Your task to perform on an android device: make emails show in primary in the gmail app Image 0: 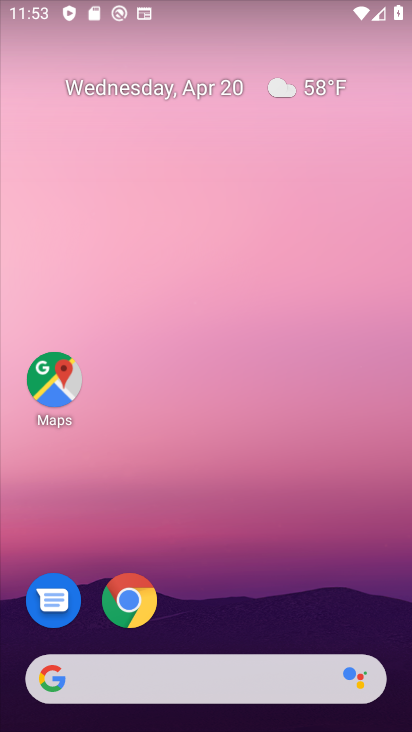
Step 0: click (135, 35)
Your task to perform on an android device: make emails show in primary in the gmail app Image 1: 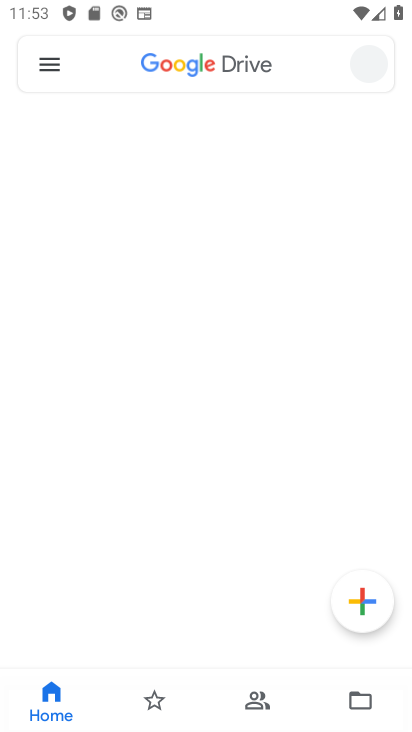
Step 1: press home button
Your task to perform on an android device: make emails show in primary in the gmail app Image 2: 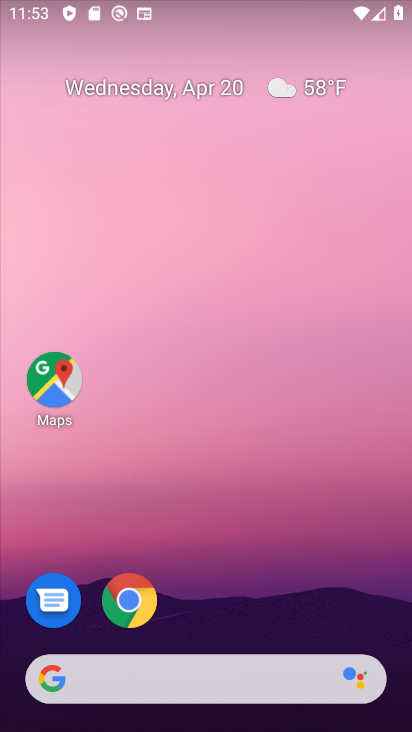
Step 2: drag from (230, 634) to (165, 70)
Your task to perform on an android device: make emails show in primary in the gmail app Image 3: 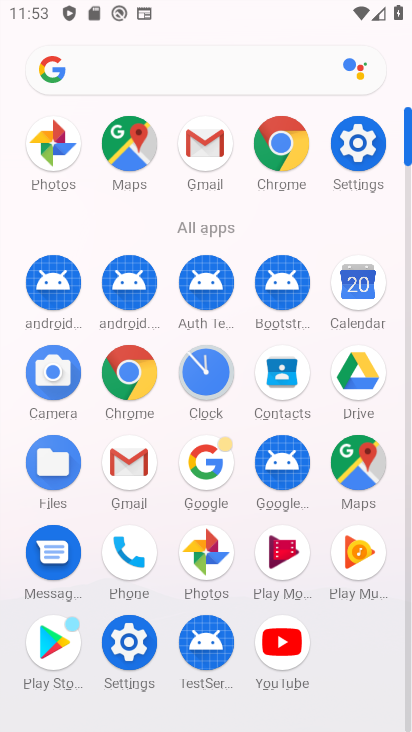
Step 3: click (133, 463)
Your task to perform on an android device: make emails show in primary in the gmail app Image 4: 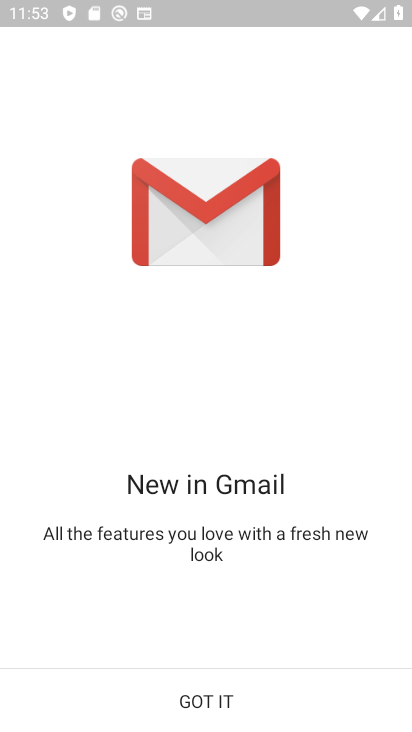
Step 4: click (226, 701)
Your task to perform on an android device: make emails show in primary in the gmail app Image 5: 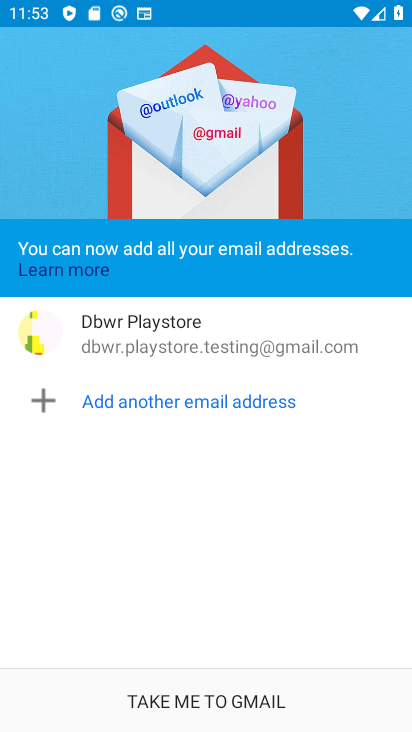
Step 5: click (226, 701)
Your task to perform on an android device: make emails show in primary in the gmail app Image 6: 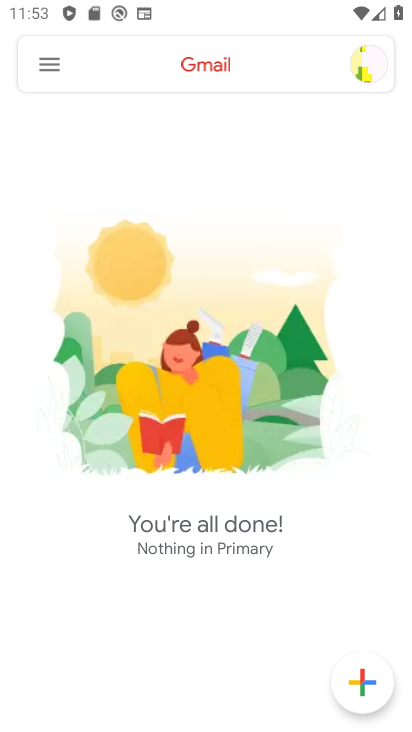
Step 6: drag from (32, 73) to (40, 112)
Your task to perform on an android device: make emails show in primary in the gmail app Image 7: 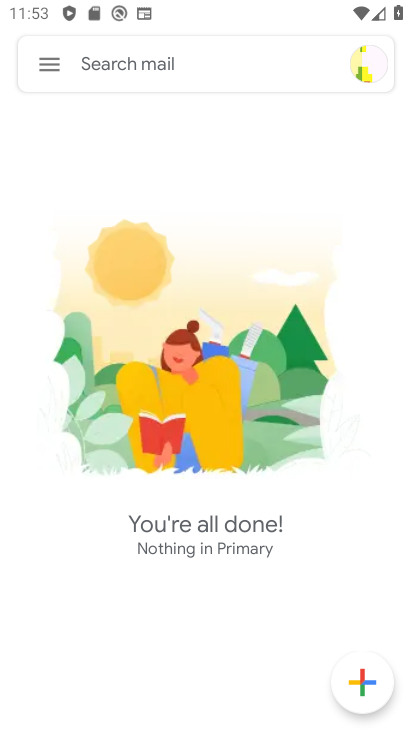
Step 7: click (42, 60)
Your task to perform on an android device: make emails show in primary in the gmail app Image 8: 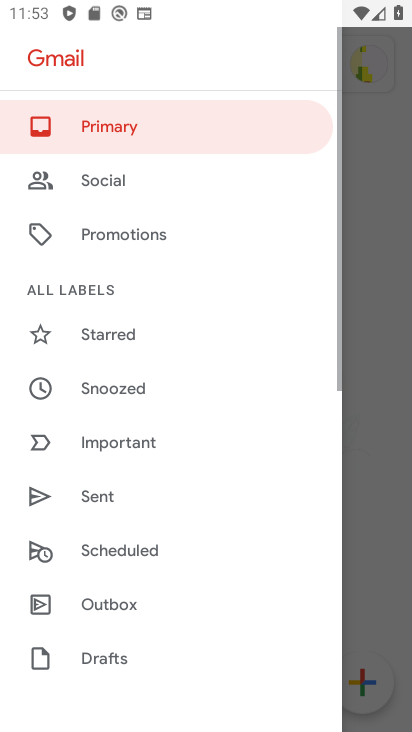
Step 8: drag from (149, 552) to (109, 87)
Your task to perform on an android device: make emails show in primary in the gmail app Image 9: 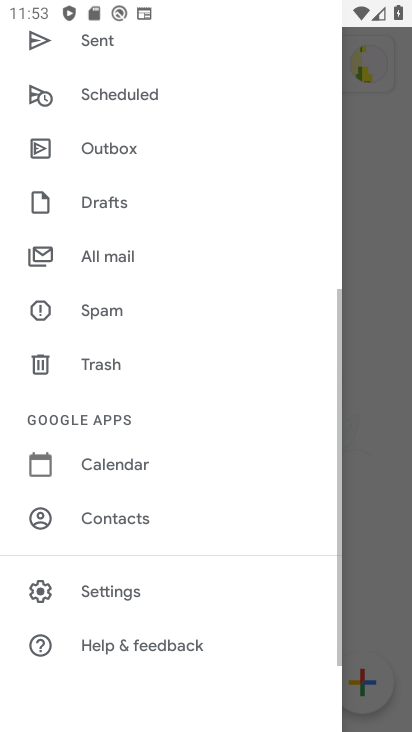
Step 9: drag from (109, 171) to (97, 723)
Your task to perform on an android device: make emails show in primary in the gmail app Image 10: 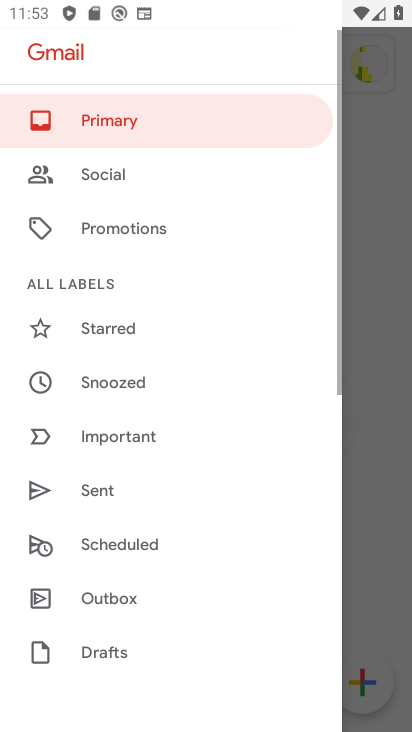
Step 10: click (143, 126)
Your task to perform on an android device: make emails show in primary in the gmail app Image 11: 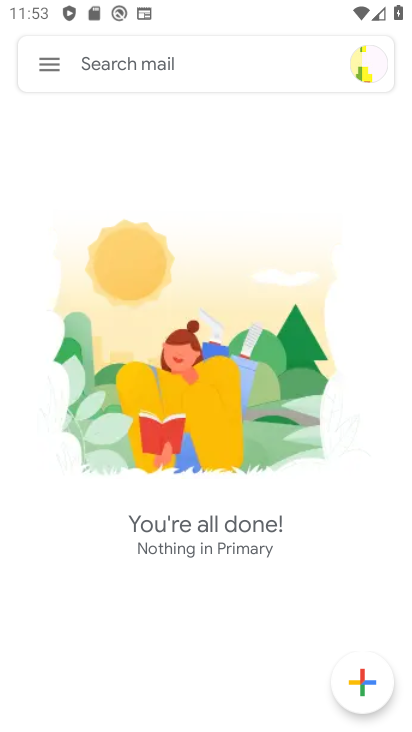
Step 11: task complete